Your task to perform on an android device: Open Google Maps Image 0: 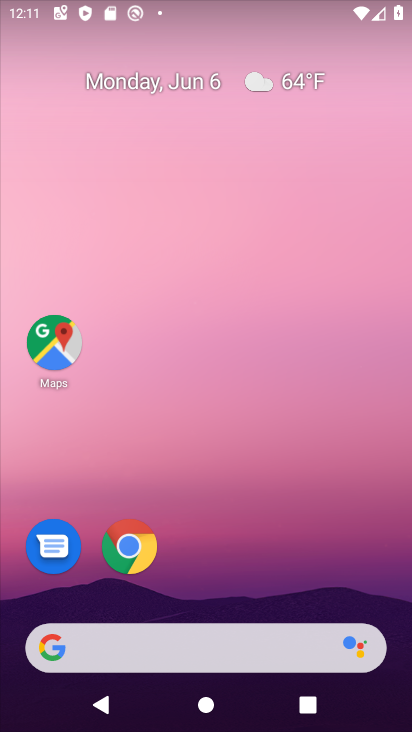
Step 0: drag from (171, 607) to (216, 251)
Your task to perform on an android device: Open Google Maps Image 1: 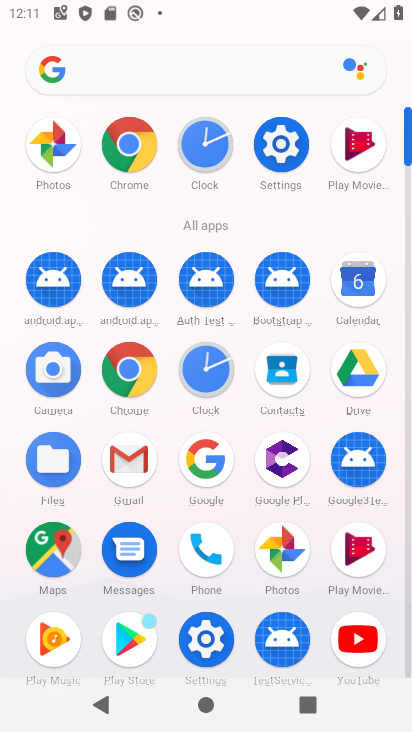
Step 1: click (33, 540)
Your task to perform on an android device: Open Google Maps Image 2: 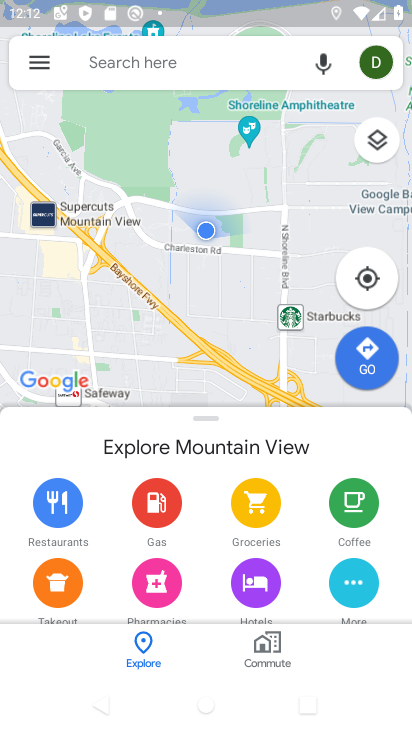
Step 2: task complete